Your task to perform on an android device: Search for sushi restaurants on Maps Image 0: 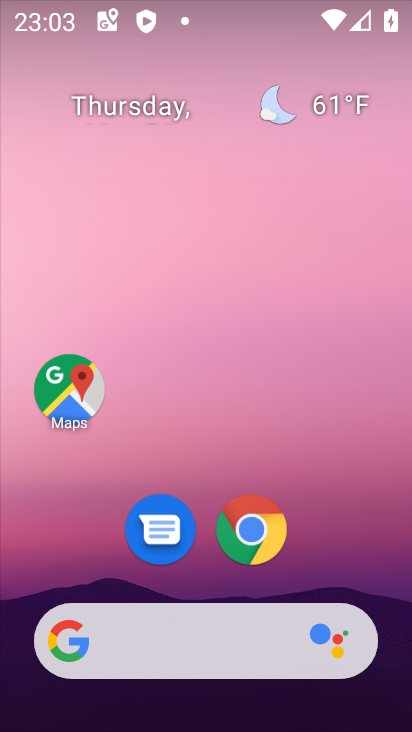
Step 0: click (54, 397)
Your task to perform on an android device: Search for sushi restaurants on Maps Image 1: 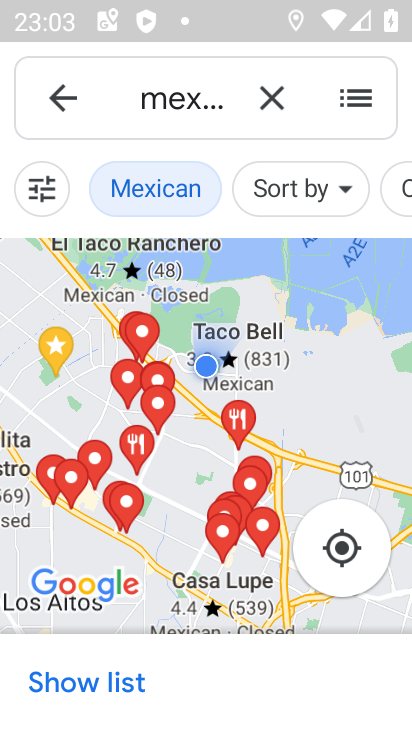
Step 1: click (266, 110)
Your task to perform on an android device: Search for sushi restaurants on Maps Image 2: 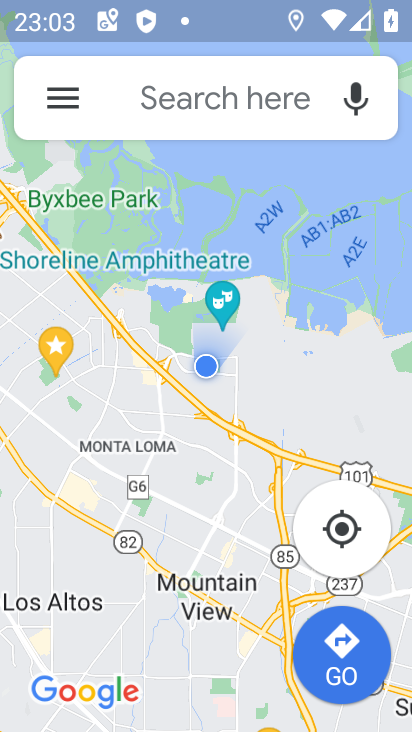
Step 2: click (227, 107)
Your task to perform on an android device: Search for sushi restaurants on Maps Image 3: 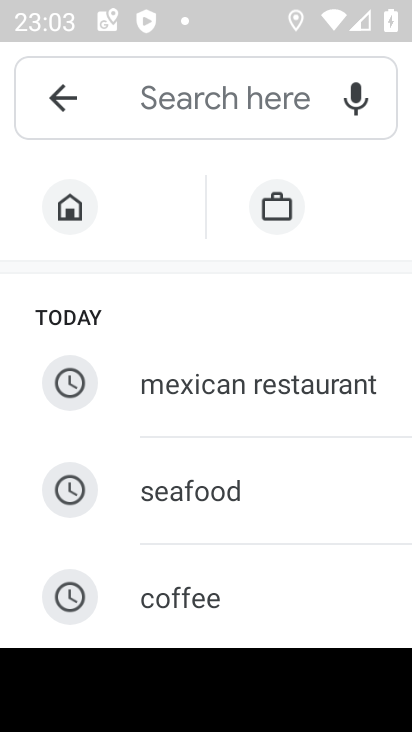
Step 3: drag from (306, 560) to (324, 195)
Your task to perform on an android device: Search for sushi restaurants on Maps Image 4: 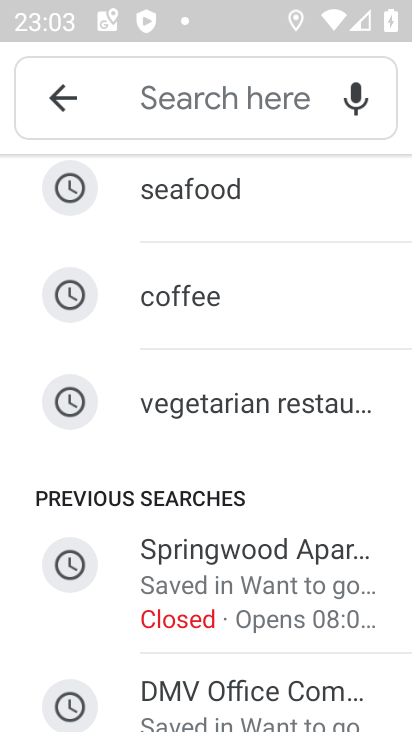
Step 4: drag from (239, 616) to (262, 363)
Your task to perform on an android device: Search for sushi restaurants on Maps Image 5: 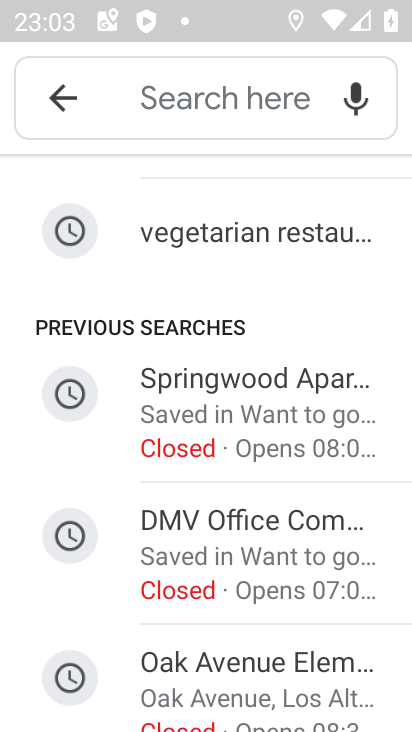
Step 5: drag from (225, 705) to (249, 326)
Your task to perform on an android device: Search for sushi restaurants on Maps Image 6: 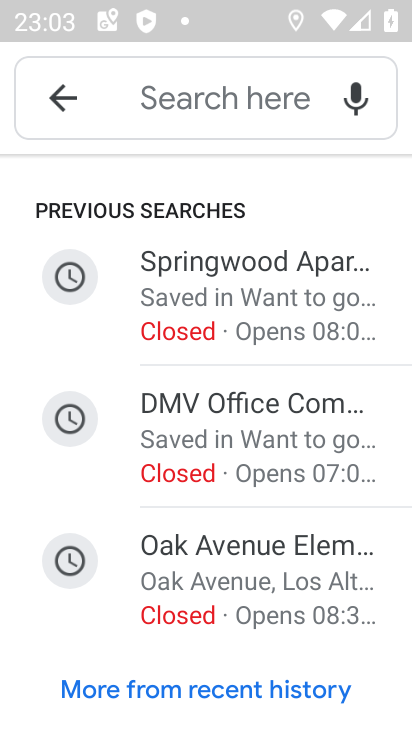
Step 6: click (196, 94)
Your task to perform on an android device: Search for sushi restaurants on Maps Image 7: 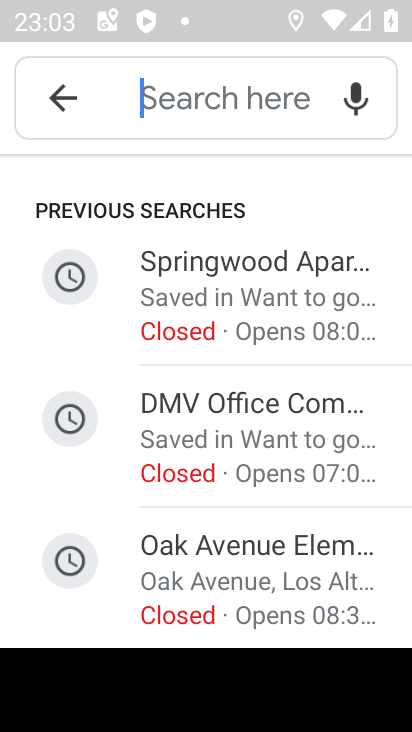
Step 7: type "sushi"
Your task to perform on an android device: Search for sushi restaurants on Maps Image 8: 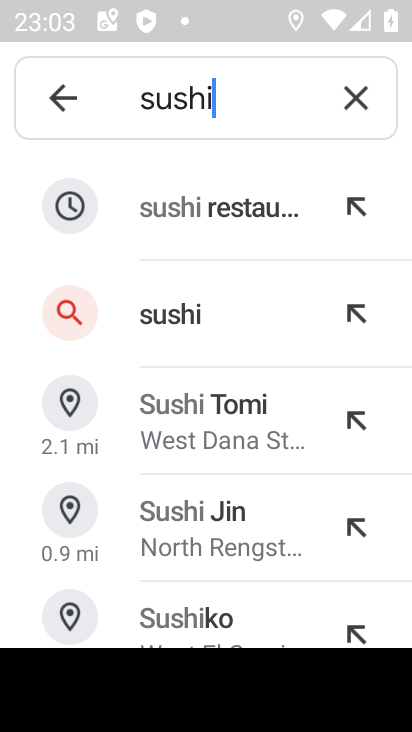
Step 8: click (196, 220)
Your task to perform on an android device: Search for sushi restaurants on Maps Image 9: 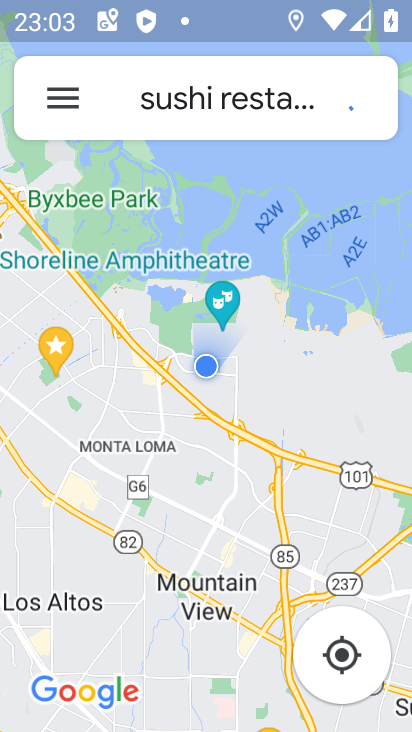
Step 9: task complete